Your task to perform on an android device: open a new tab in the chrome app Image 0: 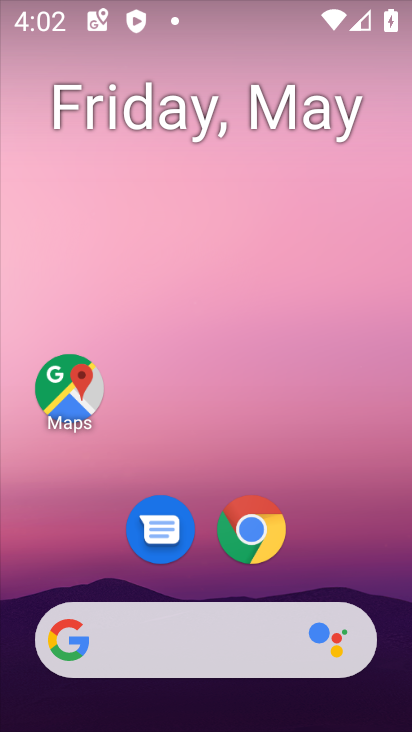
Step 0: click (275, 533)
Your task to perform on an android device: open a new tab in the chrome app Image 1: 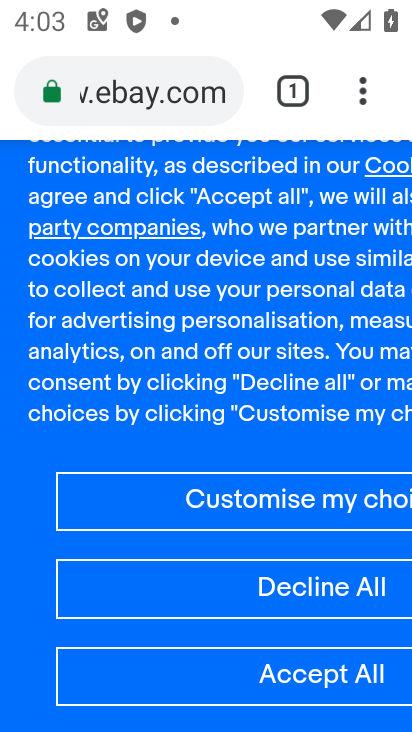
Step 1: drag from (307, 84) to (313, 225)
Your task to perform on an android device: open a new tab in the chrome app Image 2: 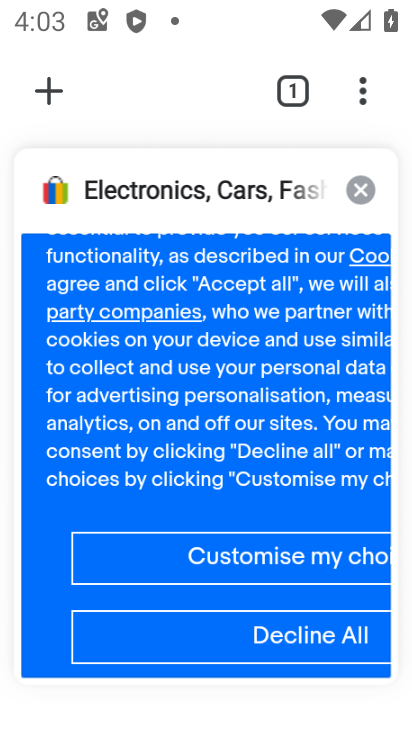
Step 2: click (56, 96)
Your task to perform on an android device: open a new tab in the chrome app Image 3: 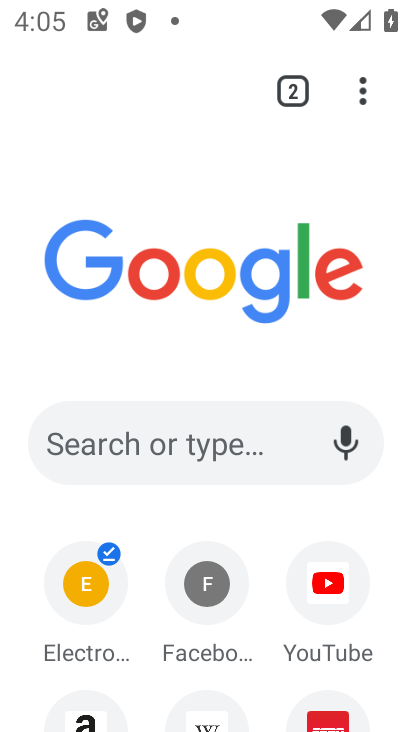
Step 3: task complete